Your task to perform on an android device: Do I have any events tomorrow? Image 0: 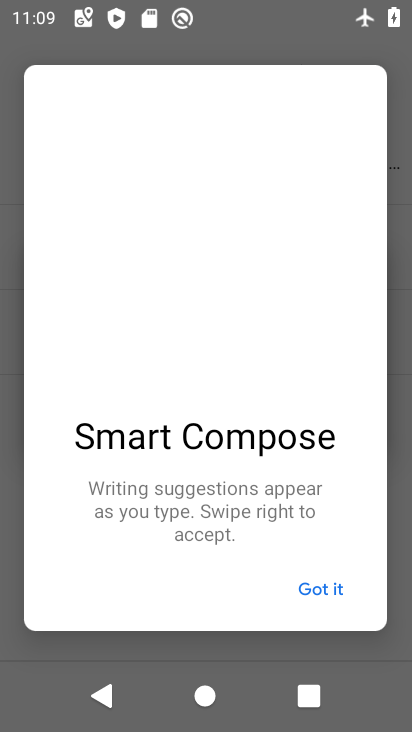
Step 0: press home button
Your task to perform on an android device: Do I have any events tomorrow? Image 1: 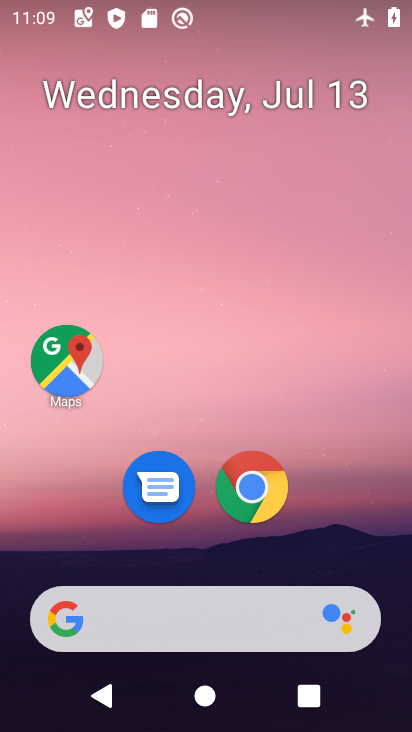
Step 1: drag from (227, 582) to (213, 69)
Your task to perform on an android device: Do I have any events tomorrow? Image 2: 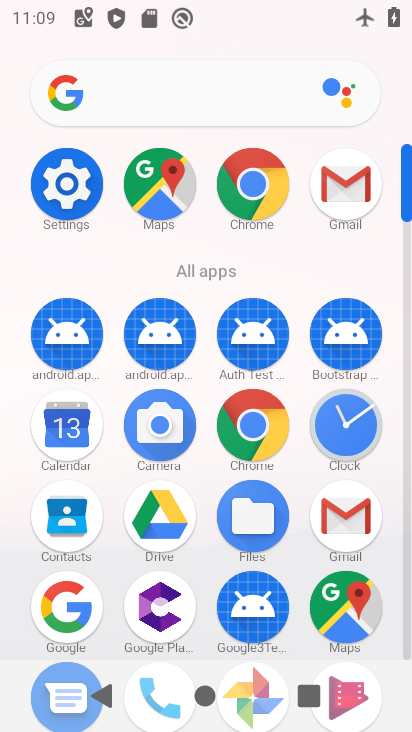
Step 2: click (72, 417)
Your task to perform on an android device: Do I have any events tomorrow? Image 3: 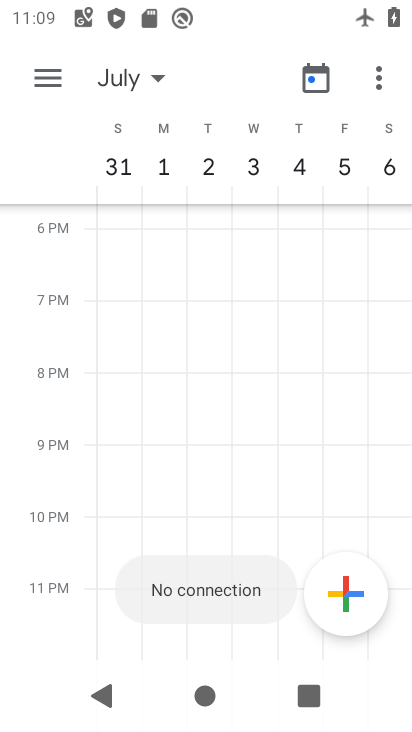
Step 3: click (326, 69)
Your task to perform on an android device: Do I have any events tomorrow? Image 4: 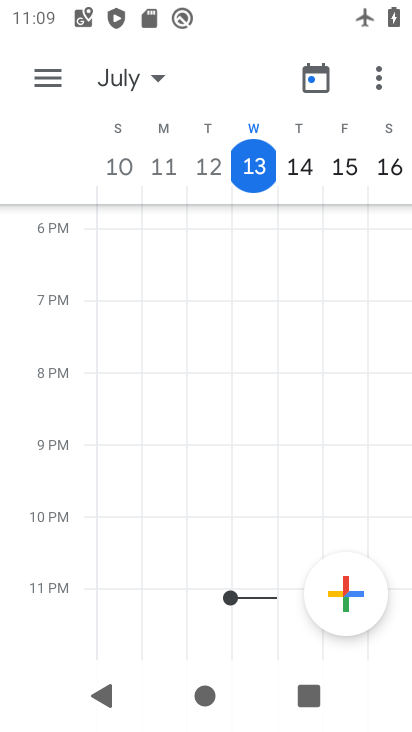
Step 4: click (311, 165)
Your task to perform on an android device: Do I have any events tomorrow? Image 5: 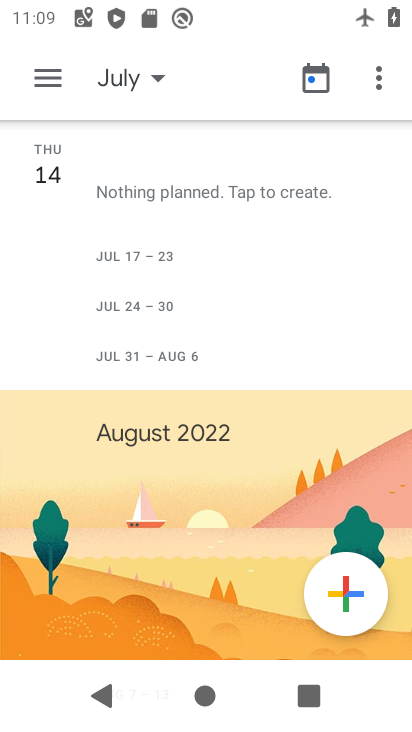
Step 5: task complete